Your task to perform on an android device: Show me the alarms in the clock app Image 0: 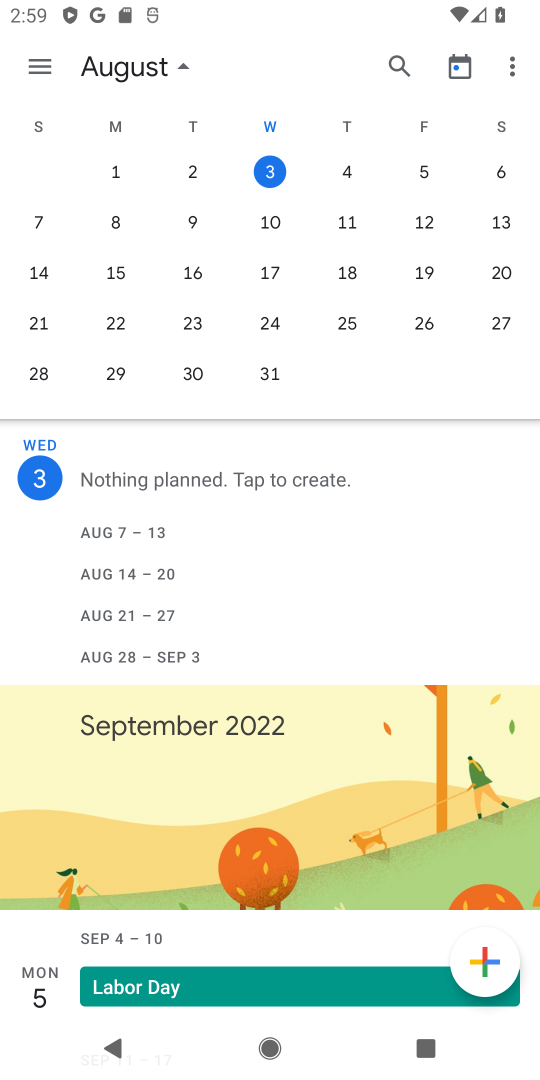
Step 0: press home button
Your task to perform on an android device: Show me the alarms in the clock app Image 1: 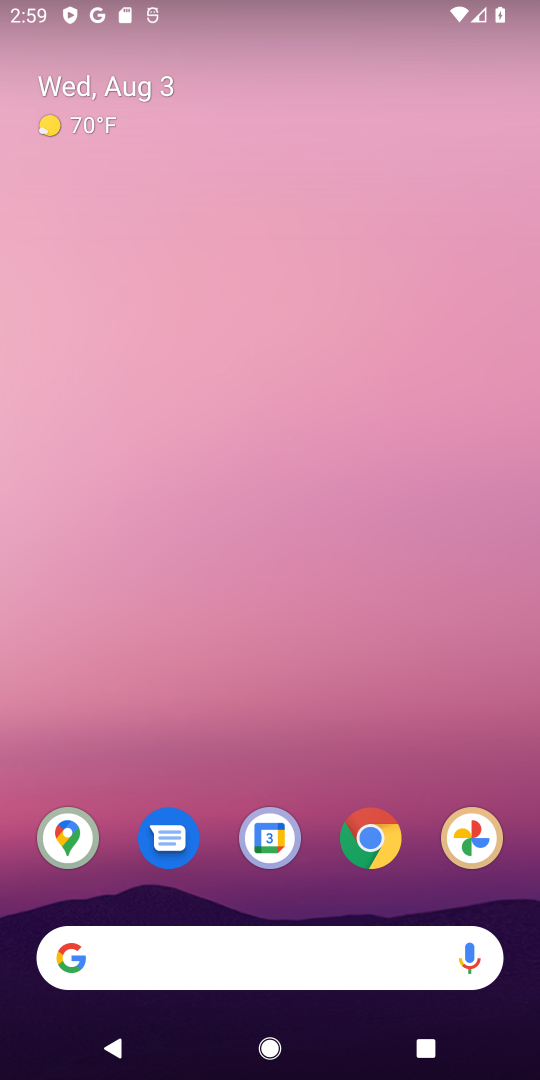
Step 1: drag from (88, 526) to (121, 97)
Your task to perform on an android device: Show me the alarms in the clock app Image 2: 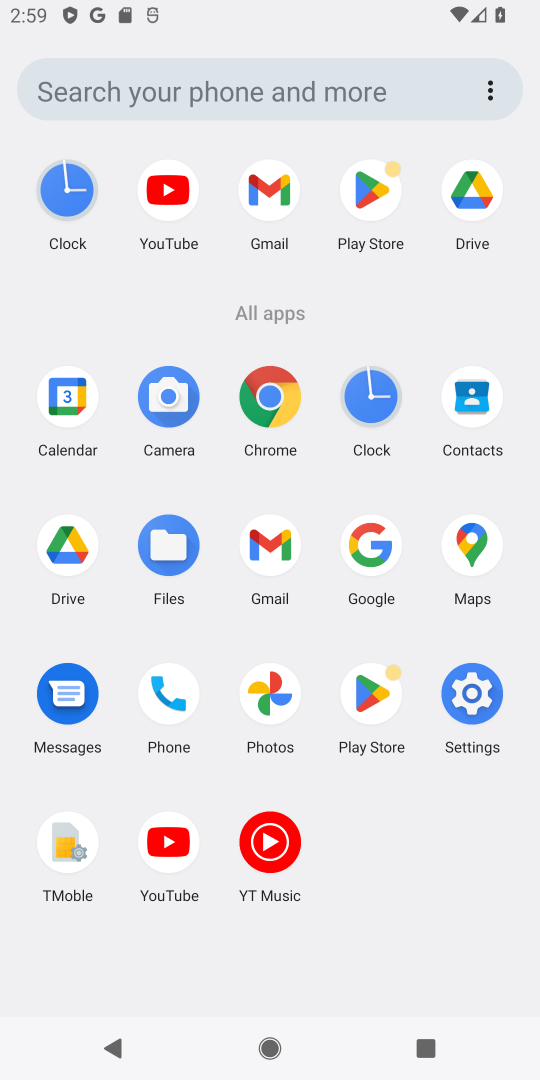
Step 2: click (55, 184)
Your task to perform on an android device: Show me the alarms in the clock app Image 3: 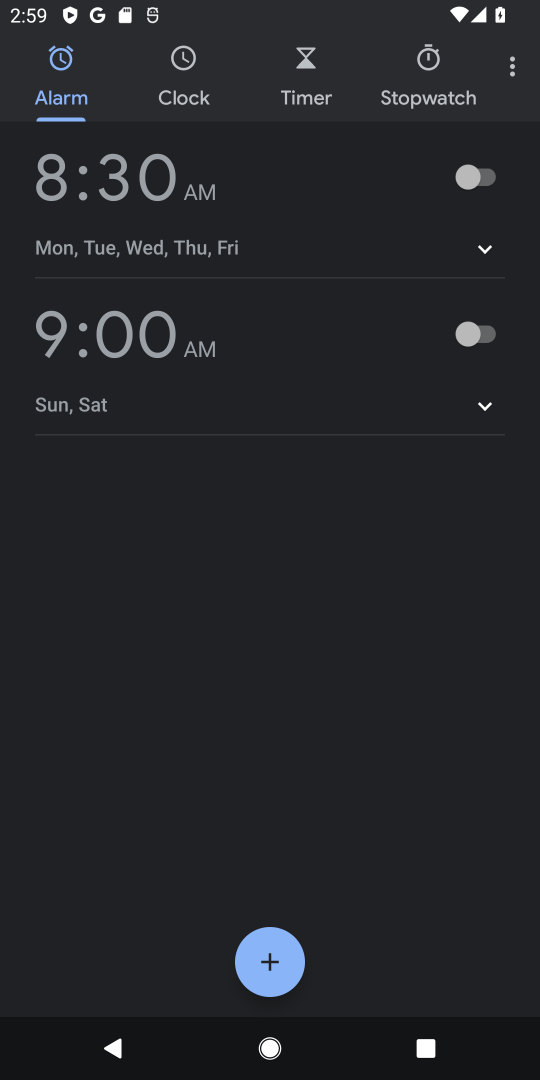
Step 3: task complete